Your task to perform on an android device: turn off javascript in the chrome app Image 0: 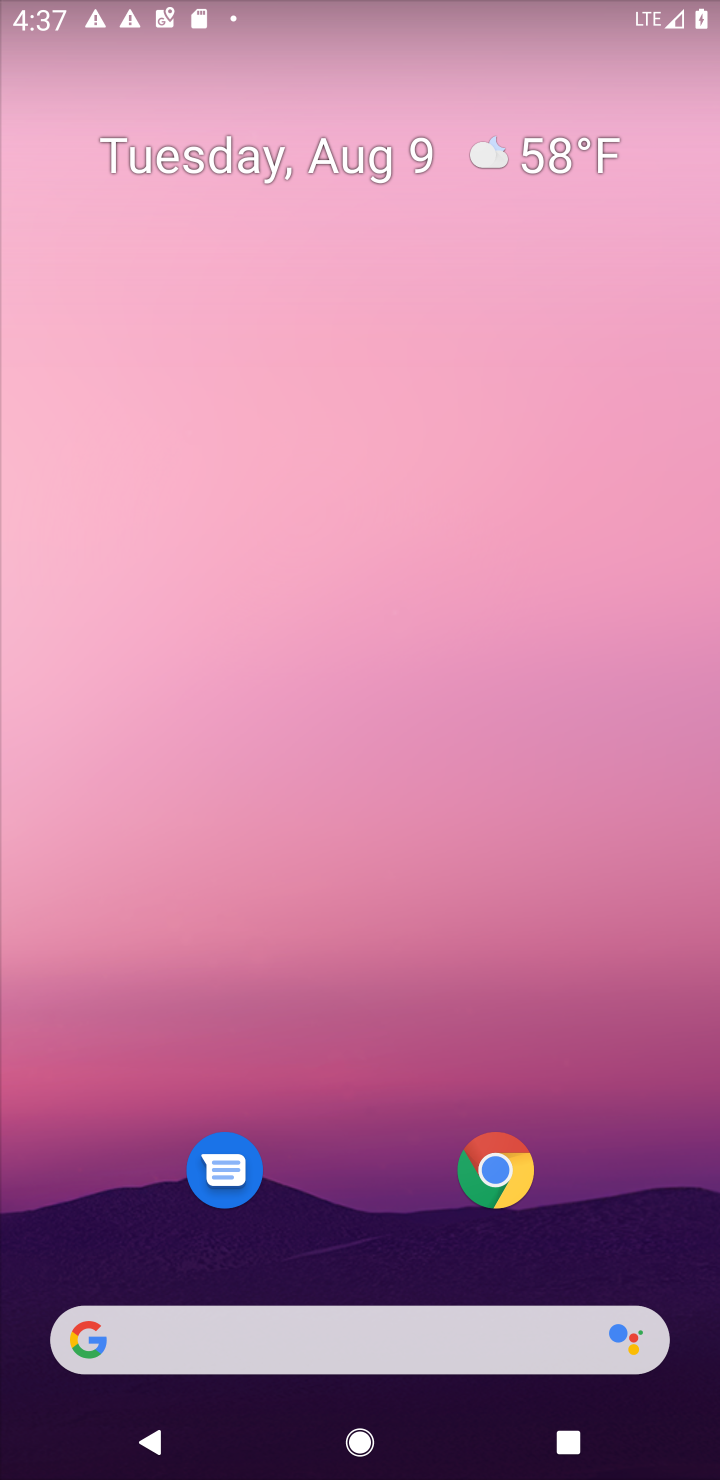
Step 0: press home button
Your task to perform on an android device: turn off javascript in the chrome app Image 1: 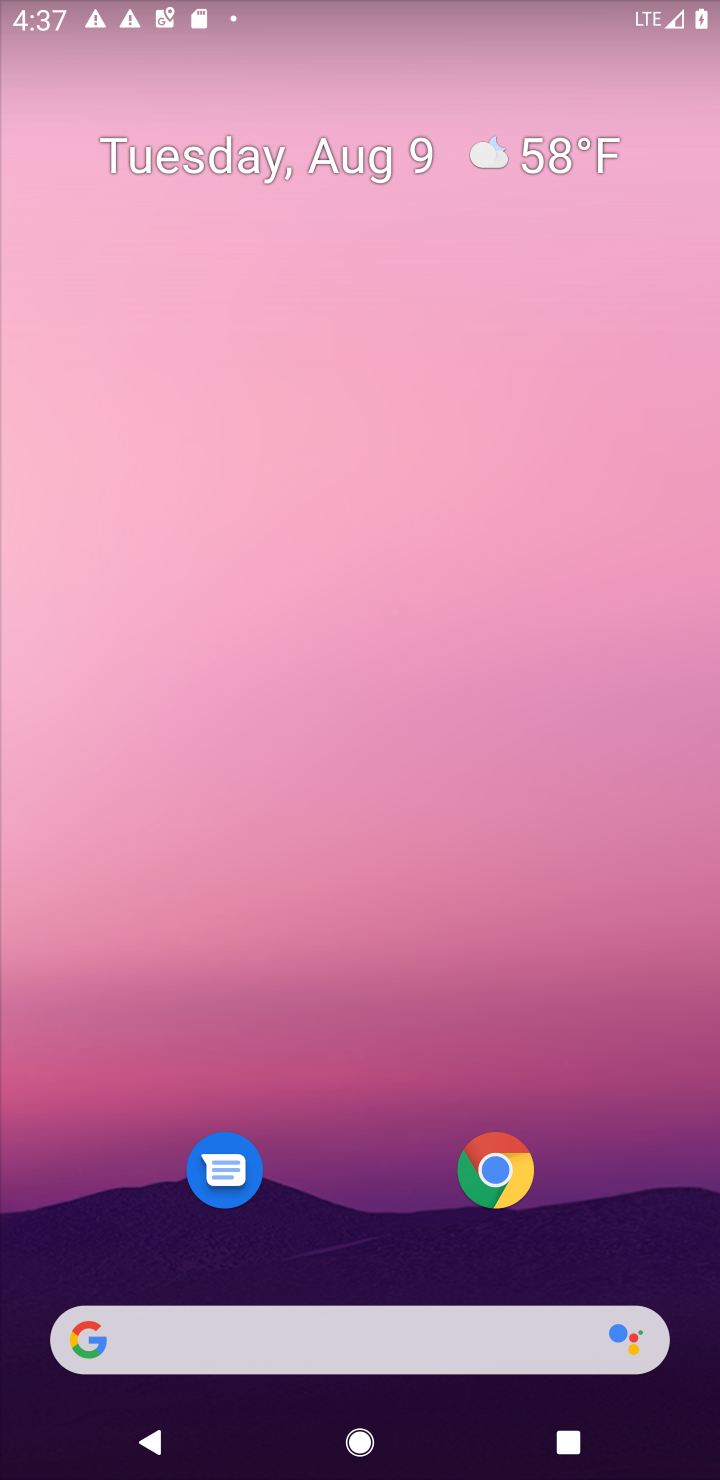
Step 1: click (497, 1148)
Your task to perform on an android device: turn off javascript in the chrome app Image 2: 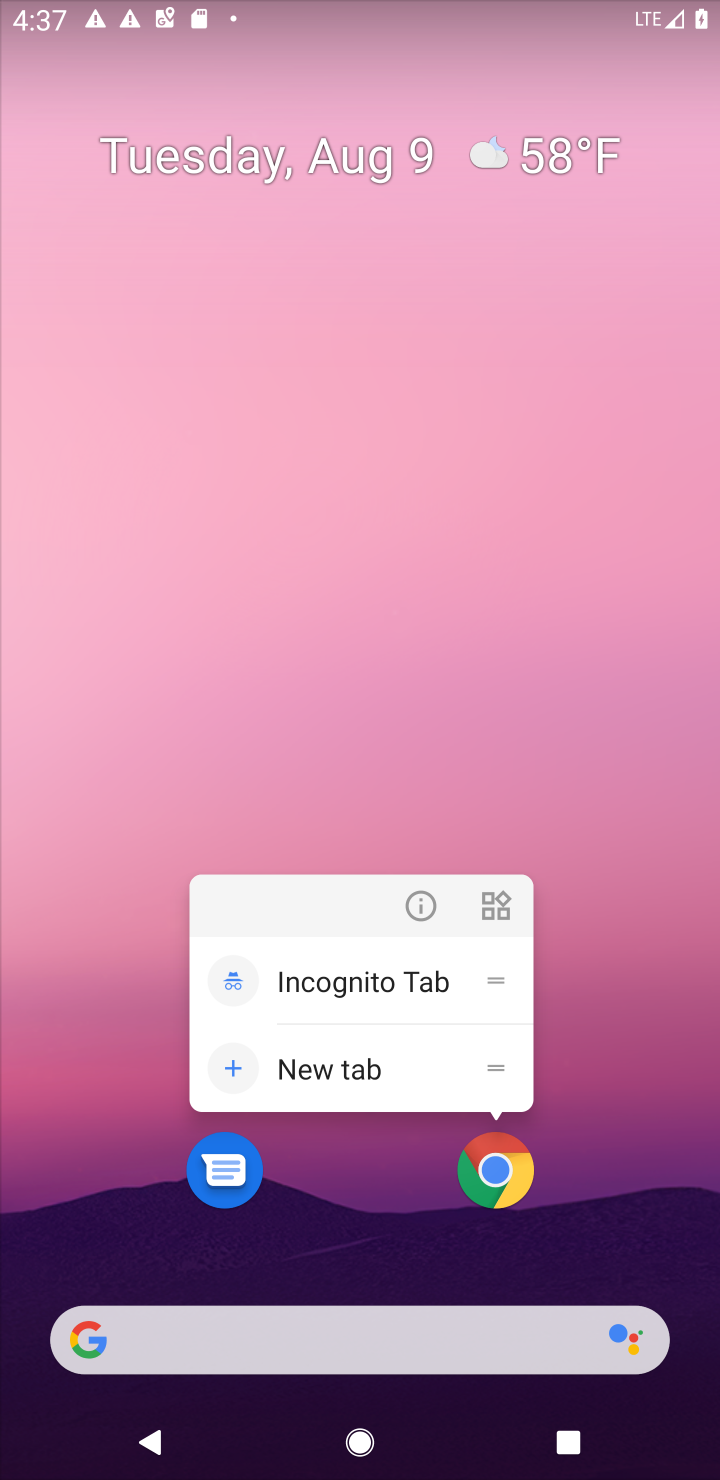
Step 2: click (481, 1171)
Your task to perform on an android device: turn off javascript in the chrome app Image 3: 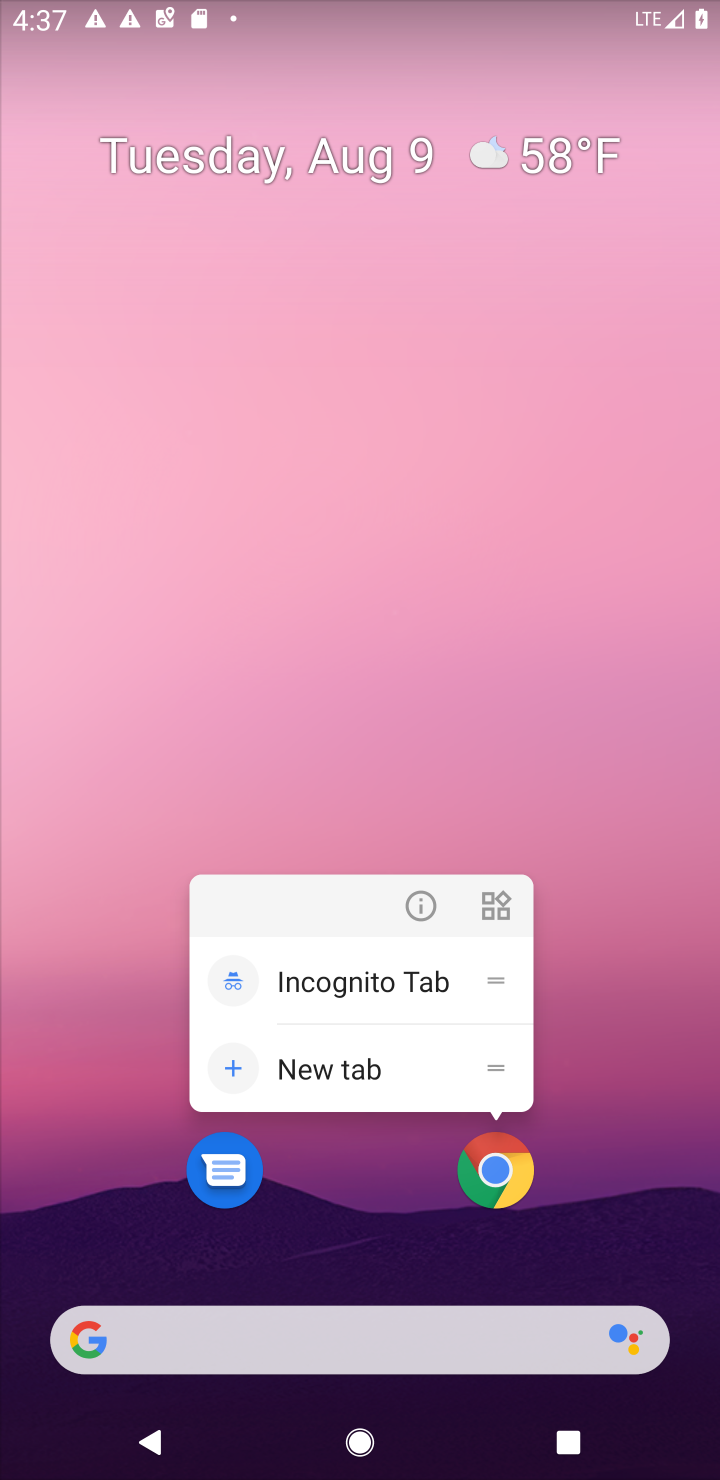
Step 3: click (487, 1168)
Your task to perform on an android device: turn off javascript in the chrome app Image 4: 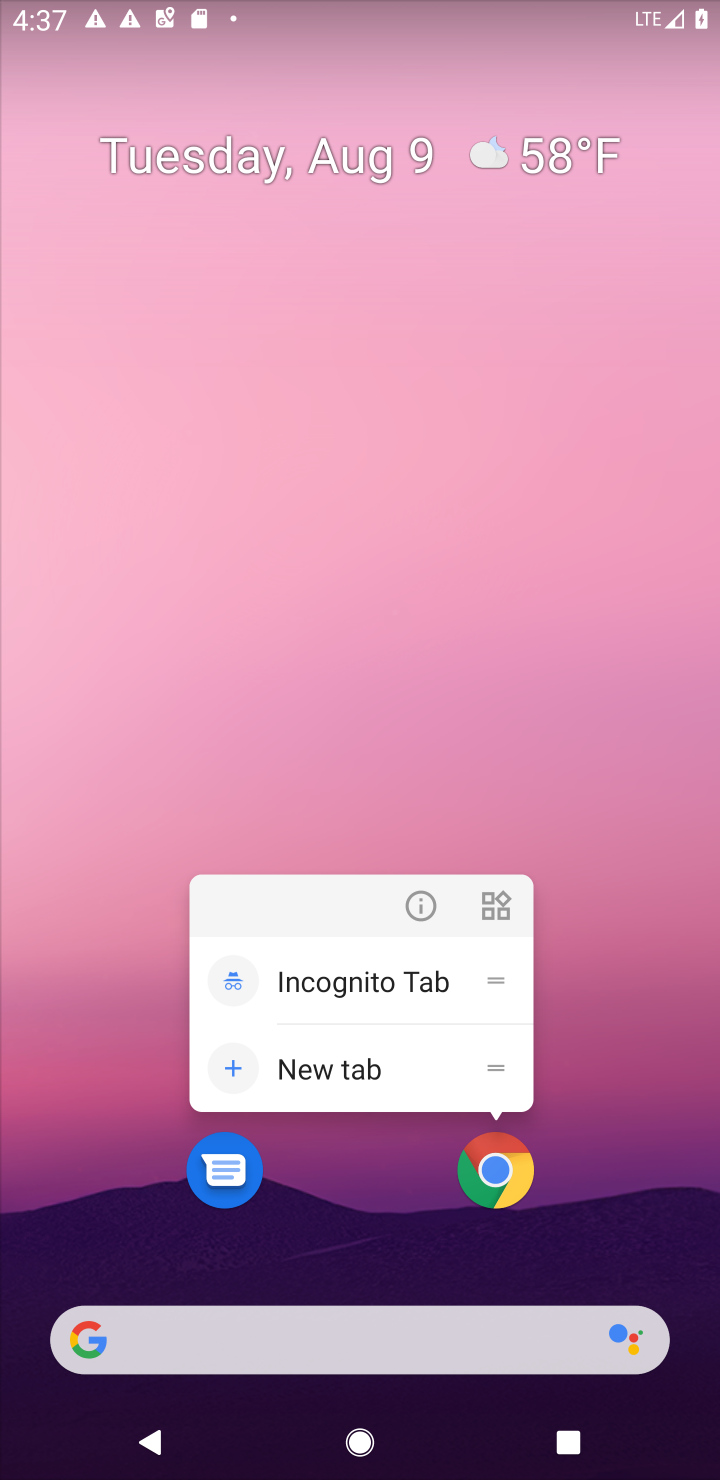
Step 4: click (487, 1168)
Your task to perform on an android device: turn off javascript in the chrome app Image 5: 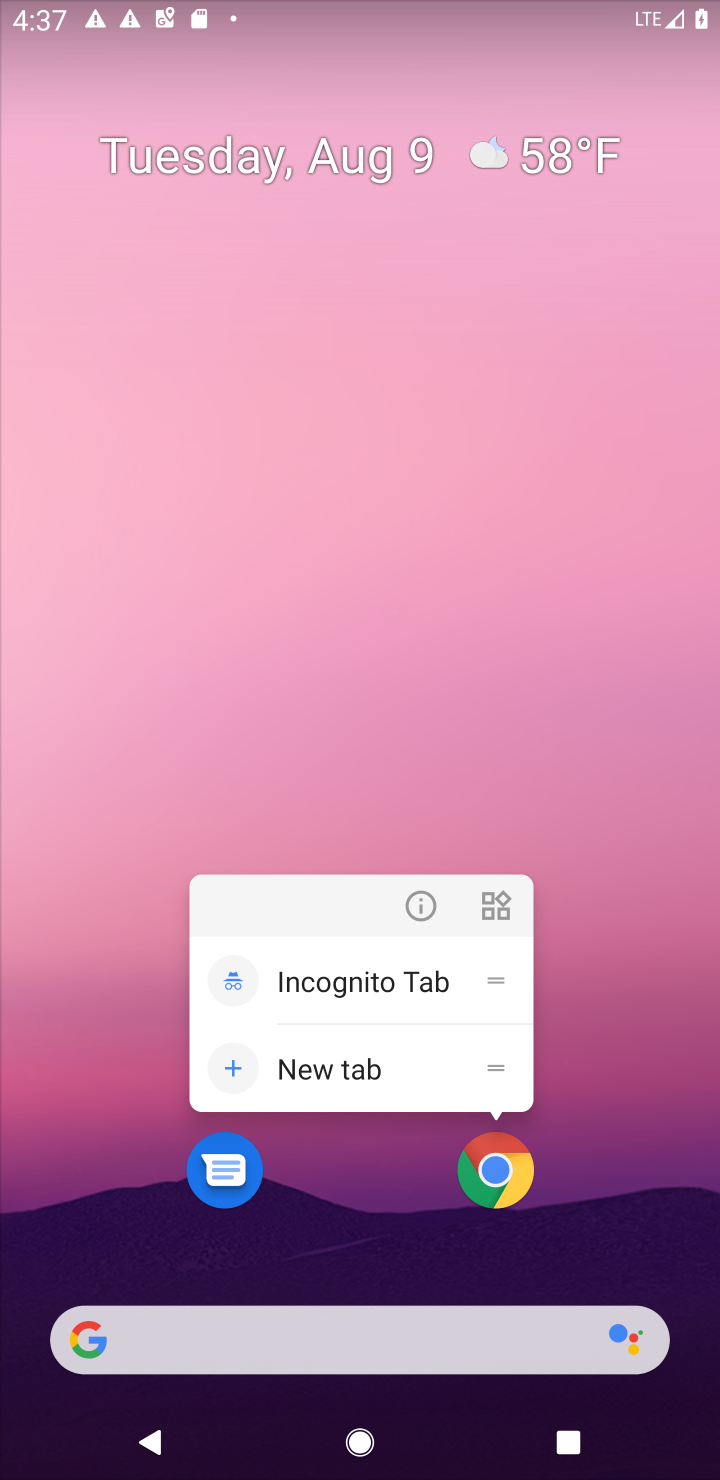
Step 5: click (513, 1197)
Your task to perform on an android device: turn off javascript in the chrome app Image 6: 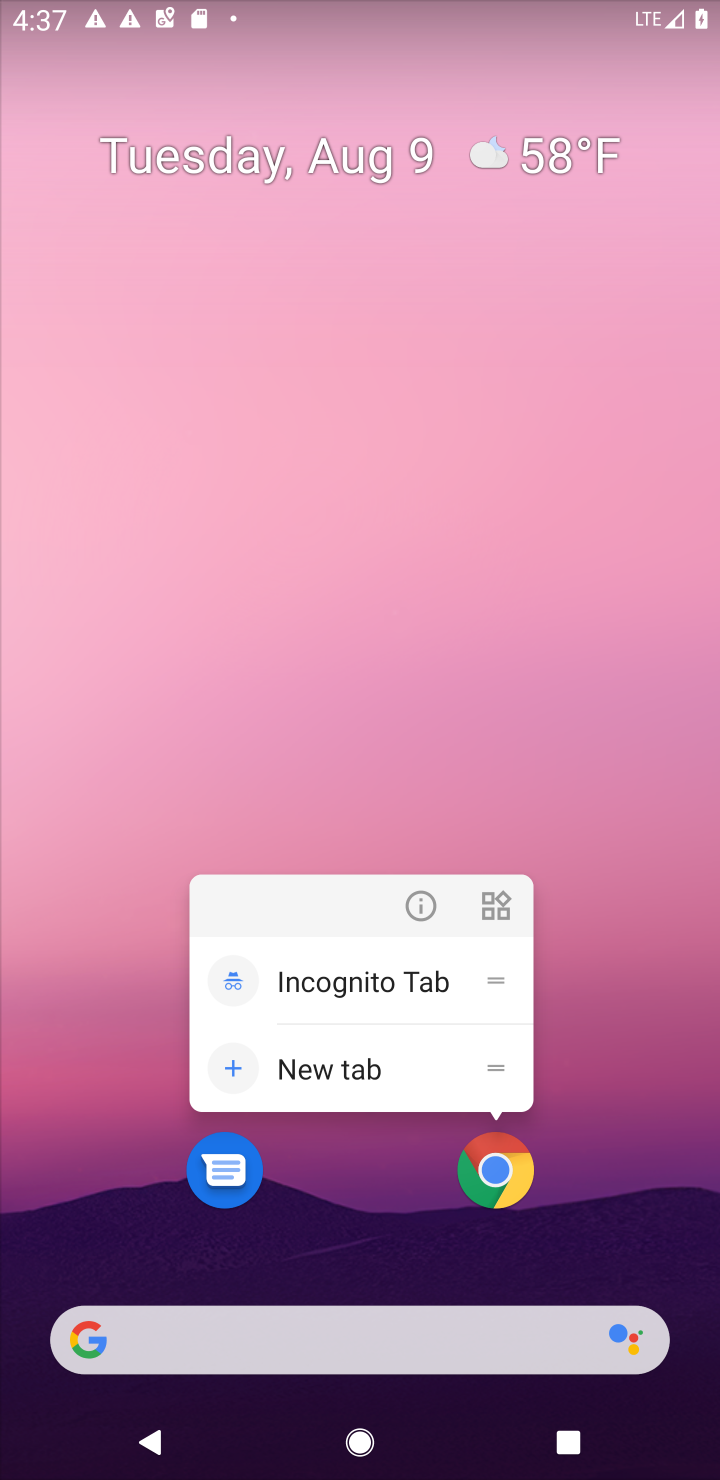
Step 6: click (506, 1174)
Your task to perform on an android device: turn off javascript in the chrome app Image 7: 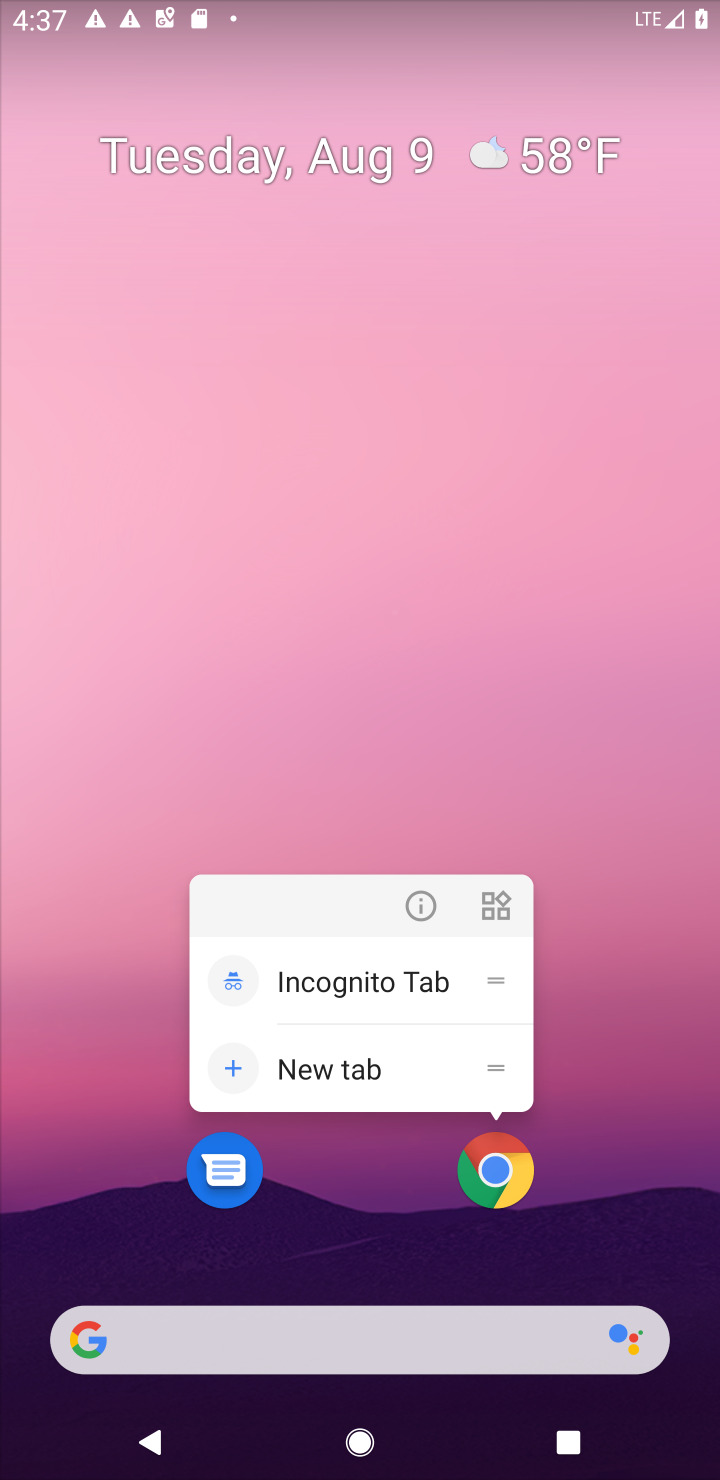
Step 7: click (506, 1174)
Your task to perform on an android device: turn off javascript in the chrome app Image 8: 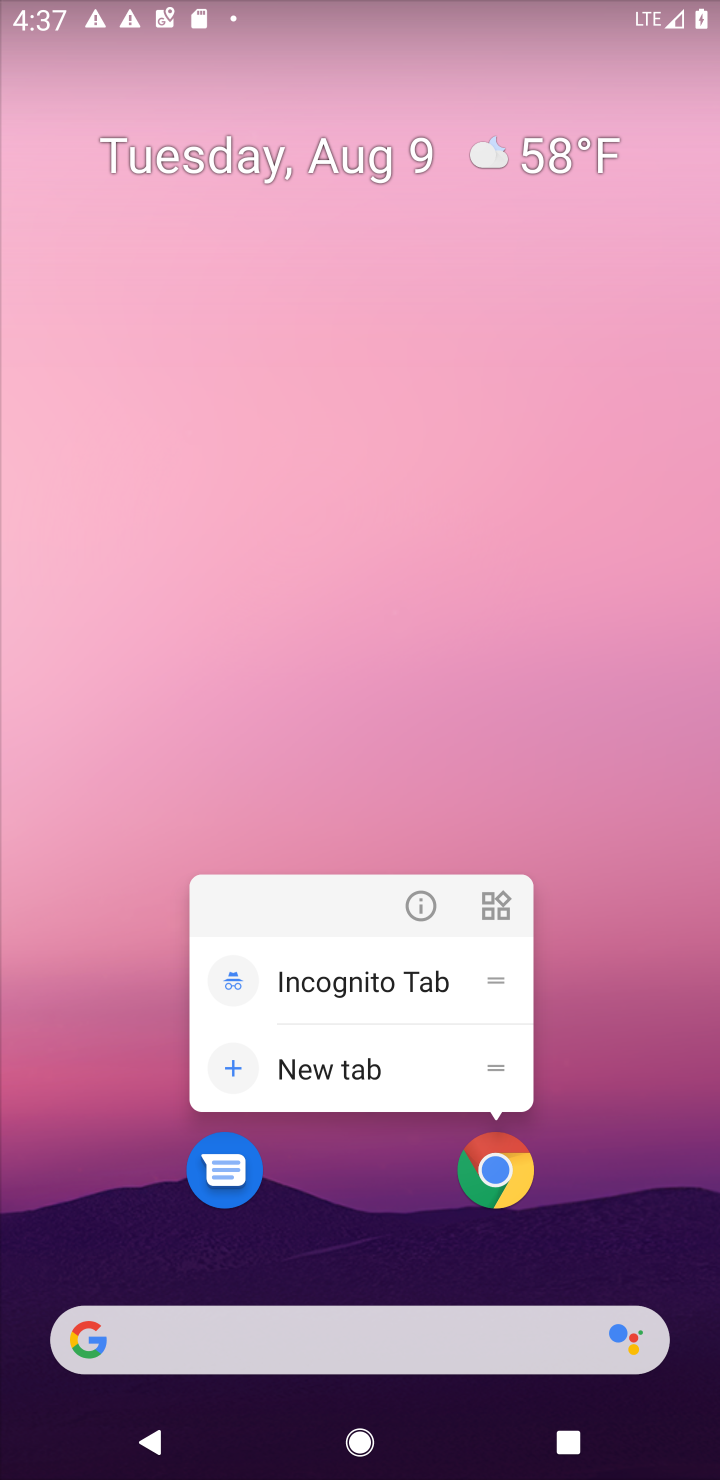
Step 8: click (498, 1177)
Your task to perform on an android device: turn off javascript in the chrome app Image 9: 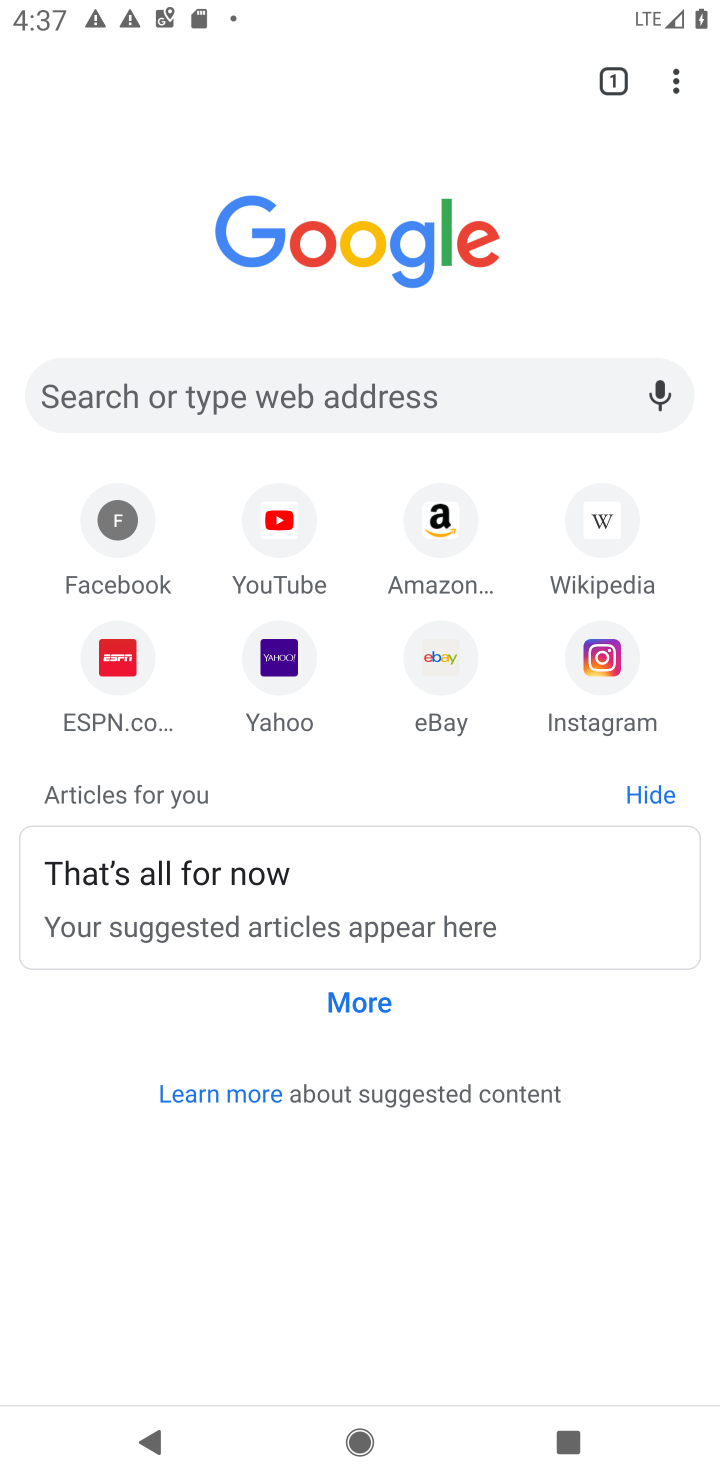
Step 9: drag from (671, 80) to (435, 681)
Your task to perform on an android device: turn off javascript in the chrome app Image 10: 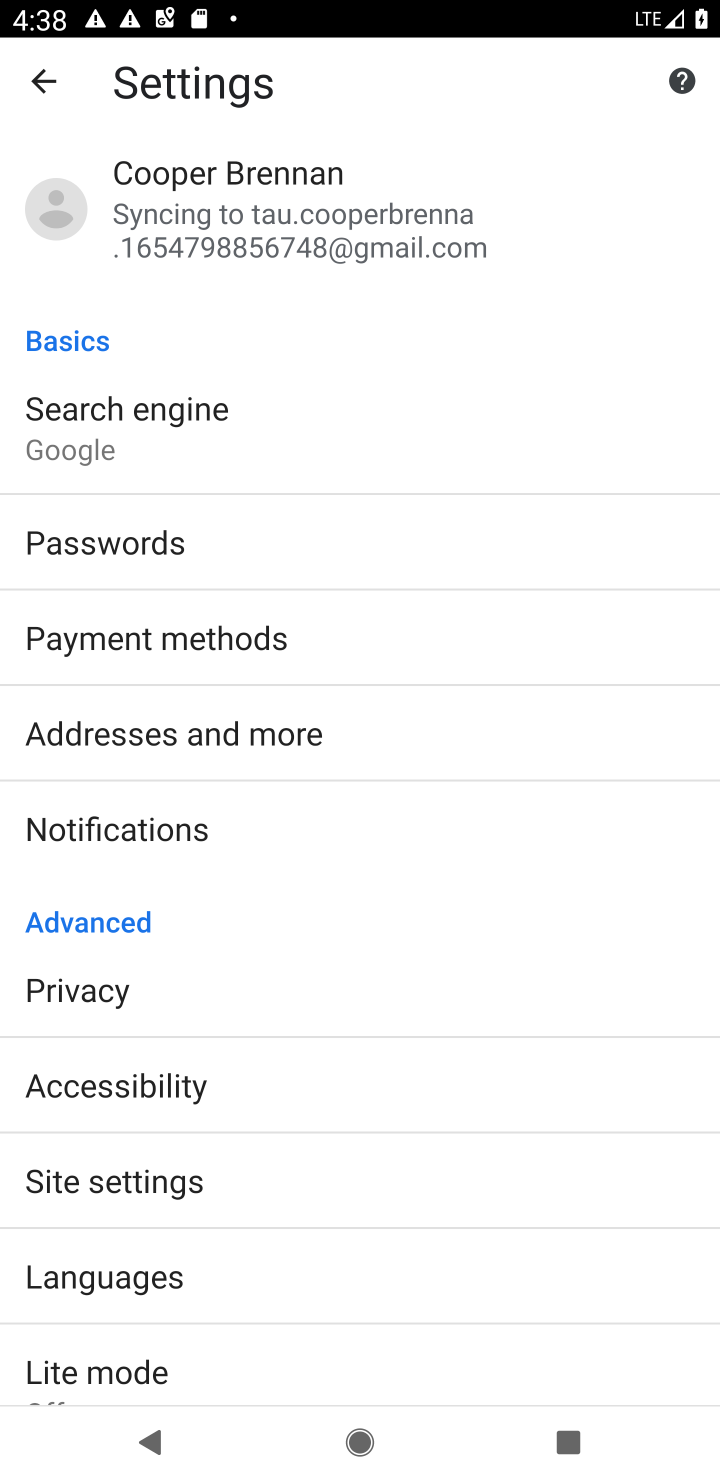
Step 10: click (124, 1186)
Your task to perform on an android device: turn off javascript in the chrome app Image 11: 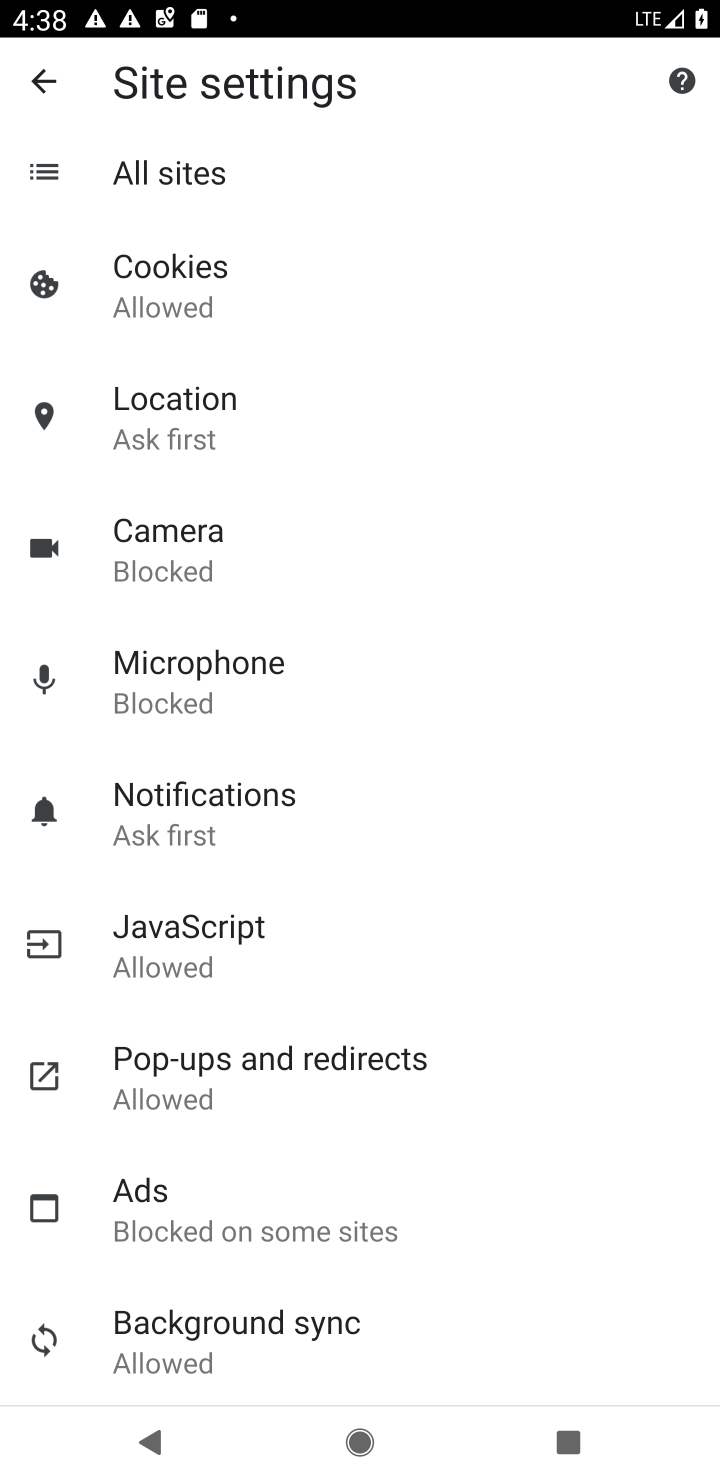
Step 11: click (244, 966)
Your task to perform on an android device: turn off javascript in the chrome app Image 12: 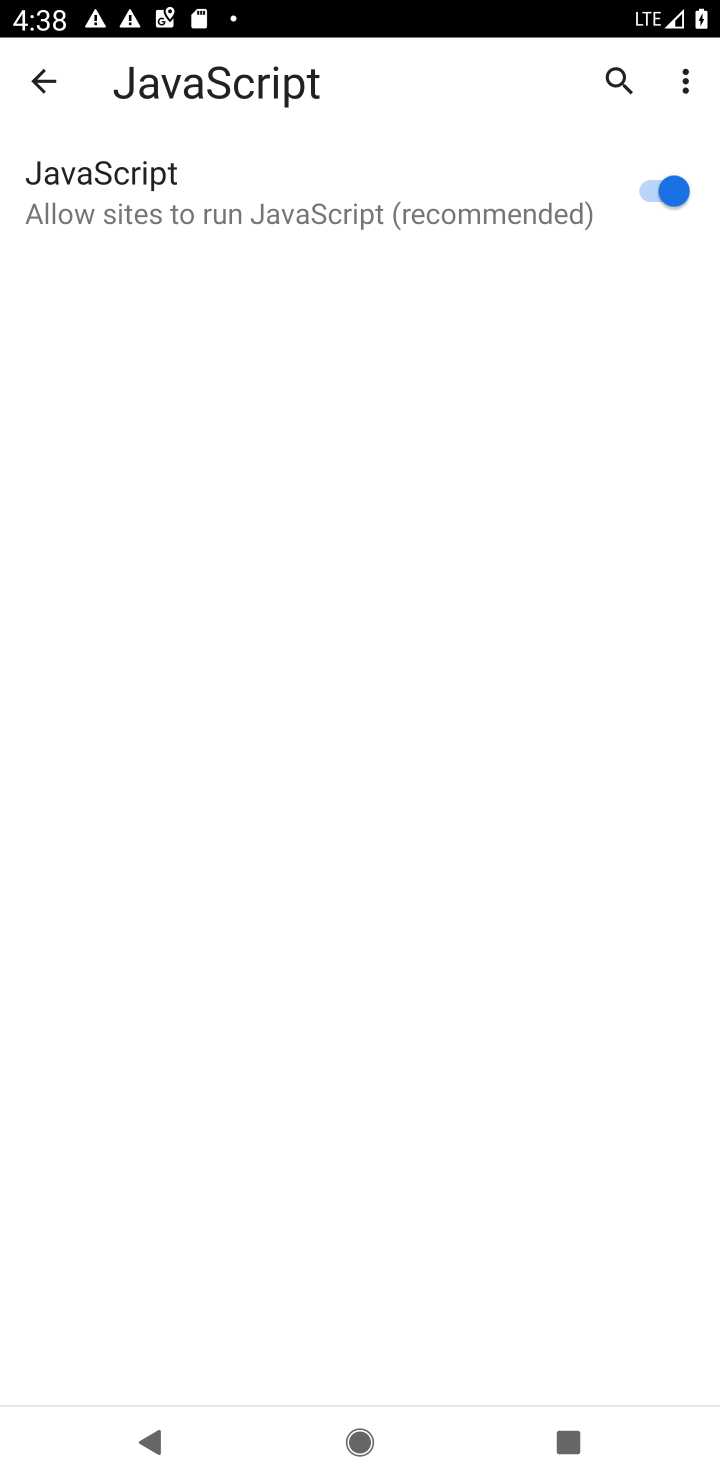
Step 12: click (672, 186)
Your task to perform on an android device: turn off javascript in the chrome app Image 13: 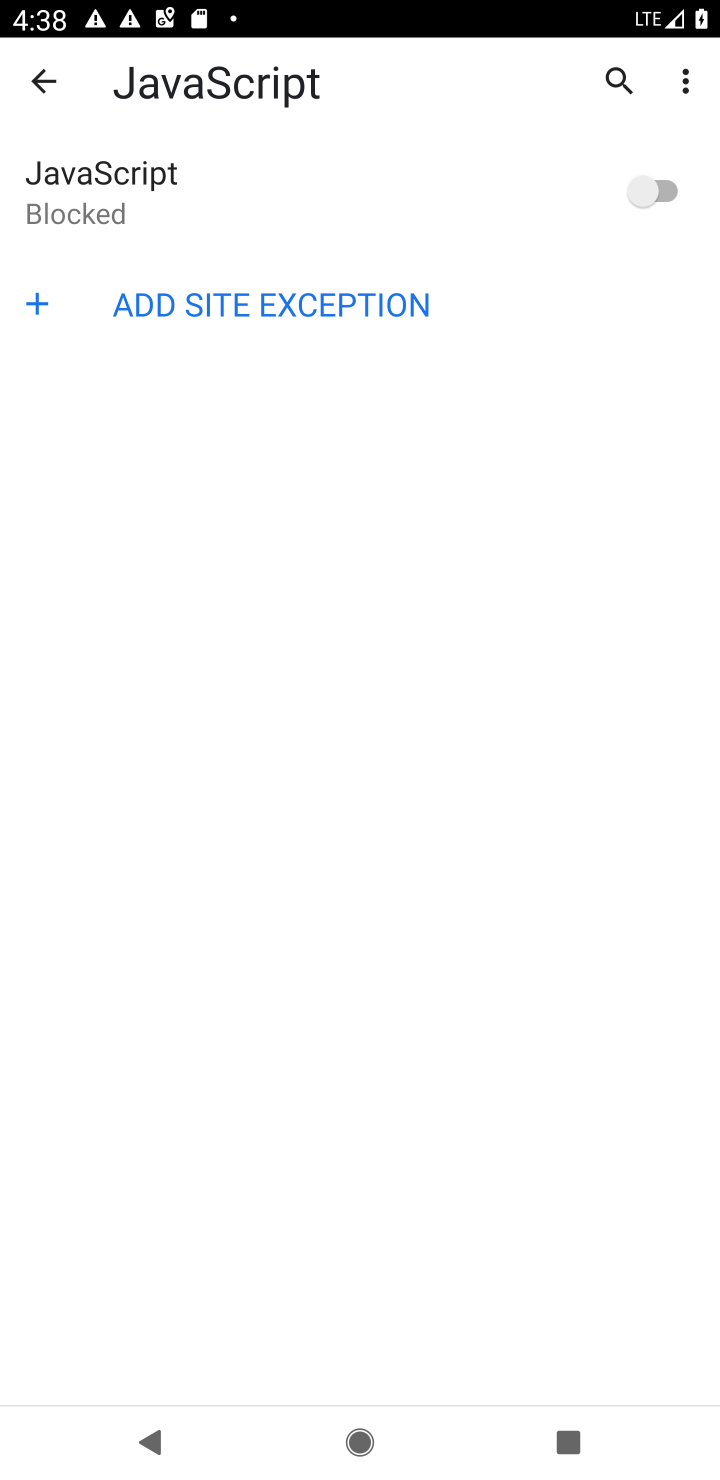
Step 13: task complete